Your task to perform on an android device: Open accessibility settings Image 0: 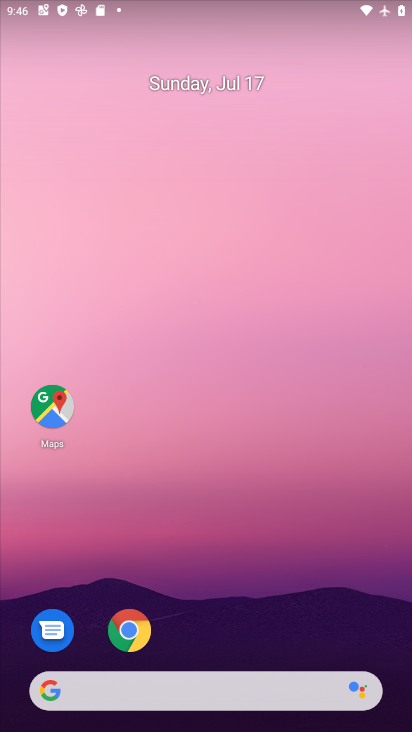
Step 0: drag from (239, 655) to (221, 89)
Your task to perform on an android device: Open accessibility settings Image 1: 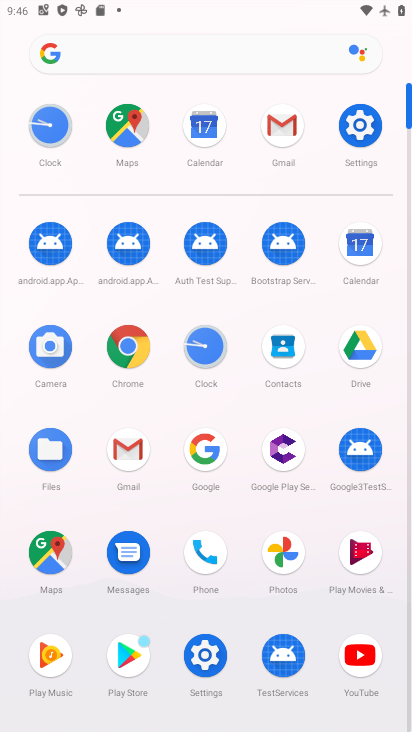
Step 1: click (363, 152)
Your task to perform on an android device: Open accessibility settings Image 2: 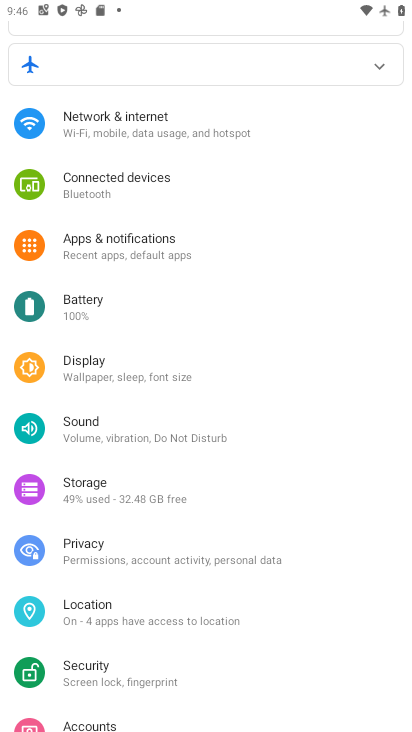
Step 2: drag from (163, 650) to (175, 370)
Your task to perform on an android device: Open accessibility settings Image 3: 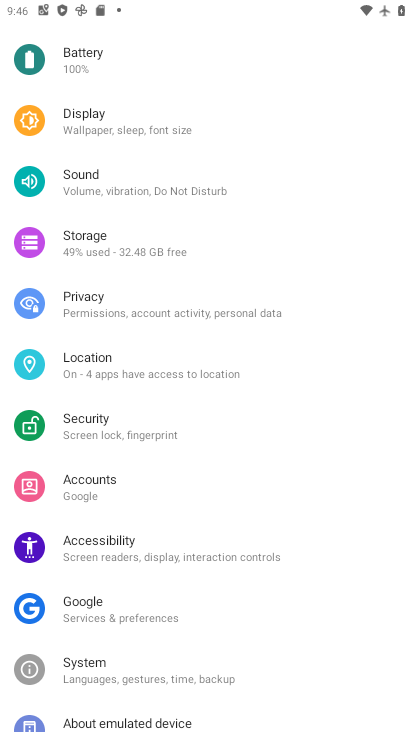
Step 3: click (142, 575)
Your task to perform on an android device: Open accessibility settings Image 4: 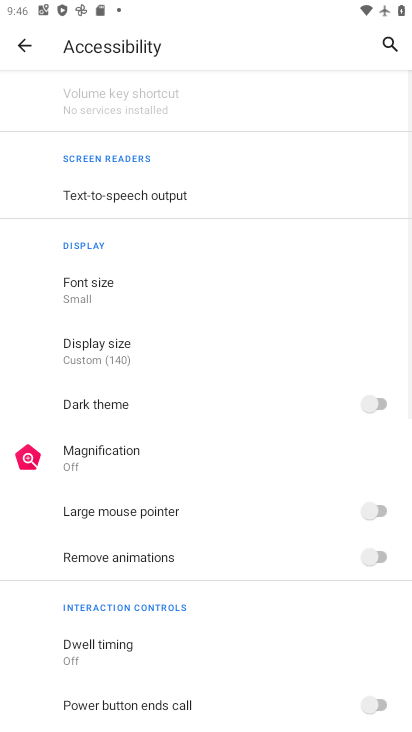
Step 4: task complete